Your task to perform on an android device: Open the phone app and click the voicemail tab. Image 0: 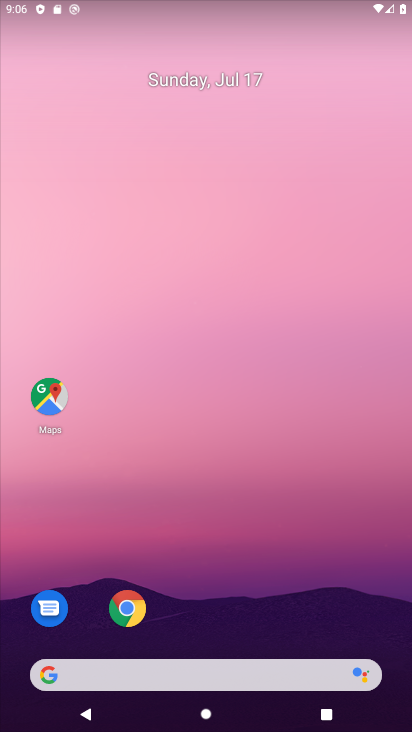
Step 0: drag from (211, 632) to (288, 0)
Your task to perform on an android device: Open the phone app and click the voicemail tab. Image 1: 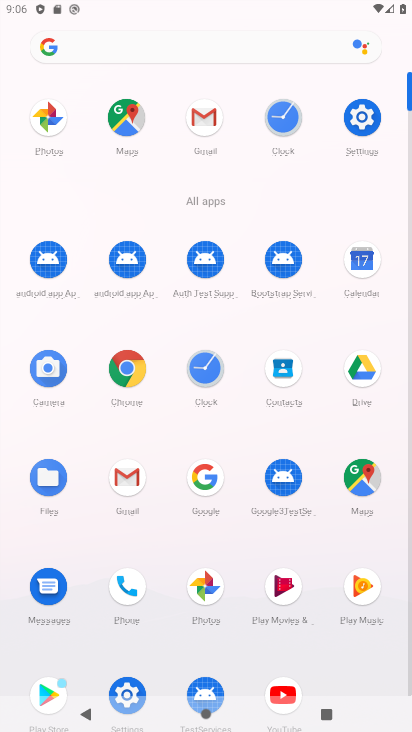
Step 1: click (127, 586)
Your task to perform on an android device: Open the phone app and click the voicemail tab. Image 2: 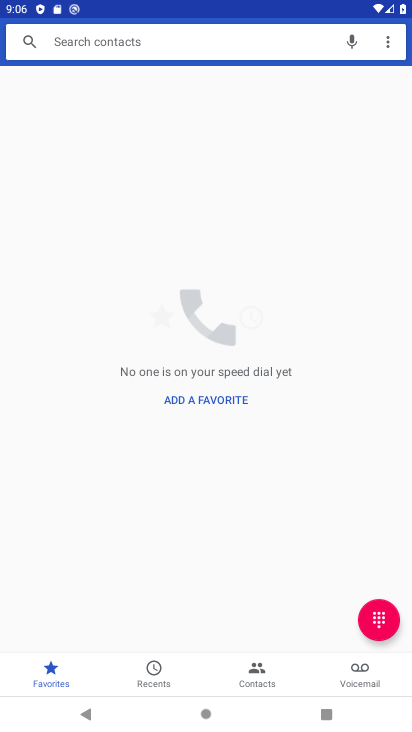
Step 2: click (358, 659)
Your task to perform on an android device: Open the phone app and click the voicemail tab. Image 3: 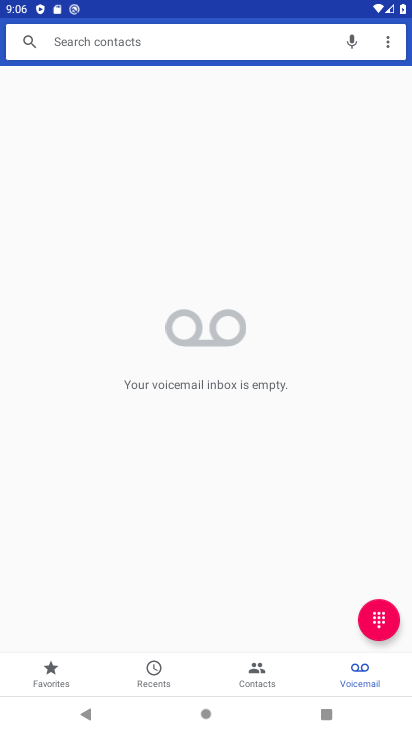
Step 3: task complete